Your task to perform on an android device: delete browsing data in the chrome app Image 0: 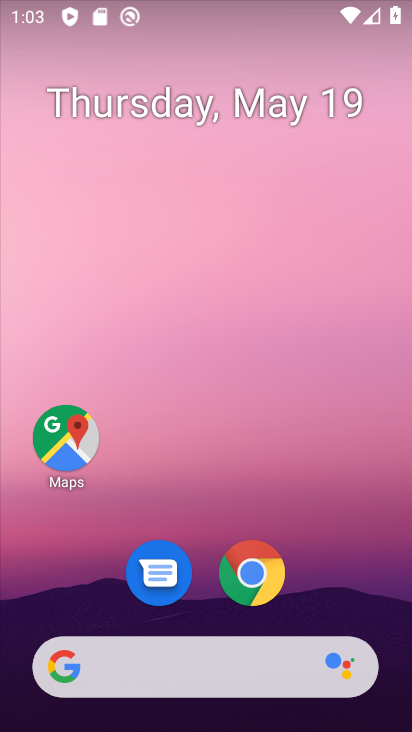
Step 0: drag from (318, 556) to (238, 21)
Your task to perform on an android device: delete browsing data in the chrome app Image 1: 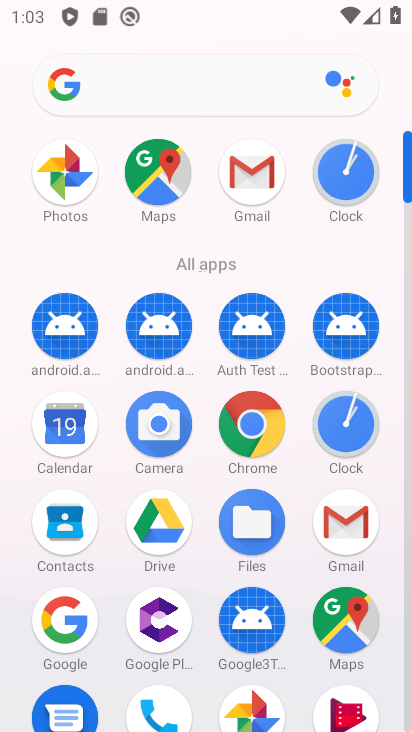
Step 1: drag from (7, 544) to (6, 259)
Your task to perform on an android device: delete browsing data in the chrome app Image 2: 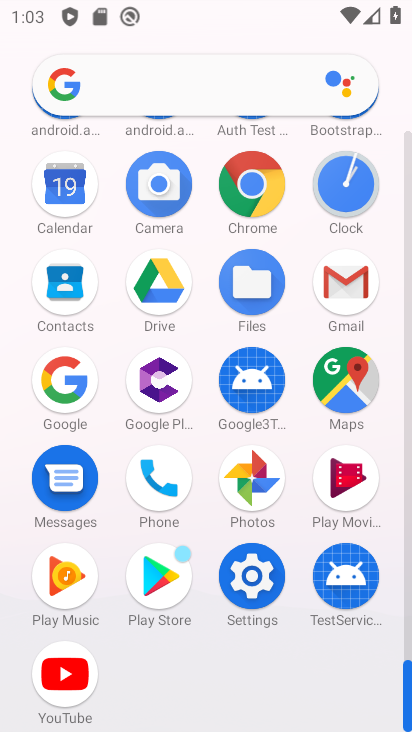
Step 2: click (250, 187)
Your task to perform on an android device: delete browsing data in the chrome app Image 3: 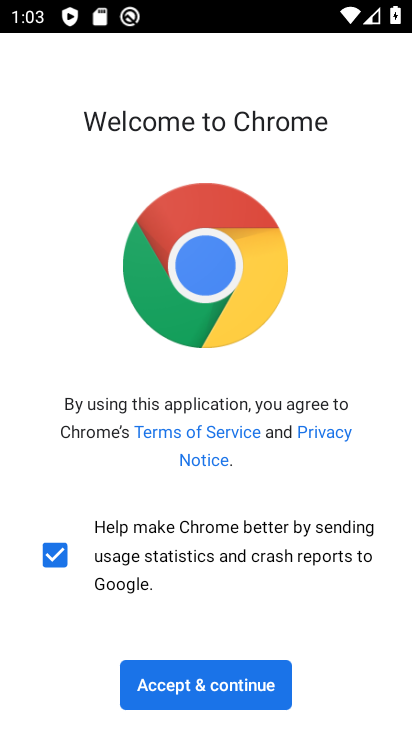
Step 3: click (156, 683)
Your task to perform on an android device: delete browsing data in the chrome app Image 4: 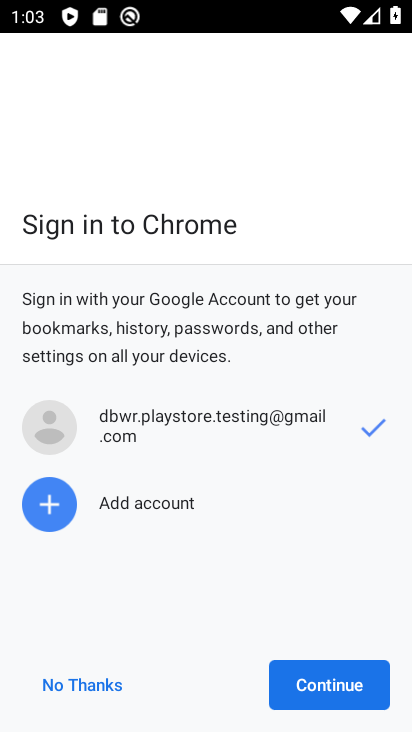
Step 4: click (309, 683)
Your task to perform on an android device: delete browsing data in the chrome app Image 5: 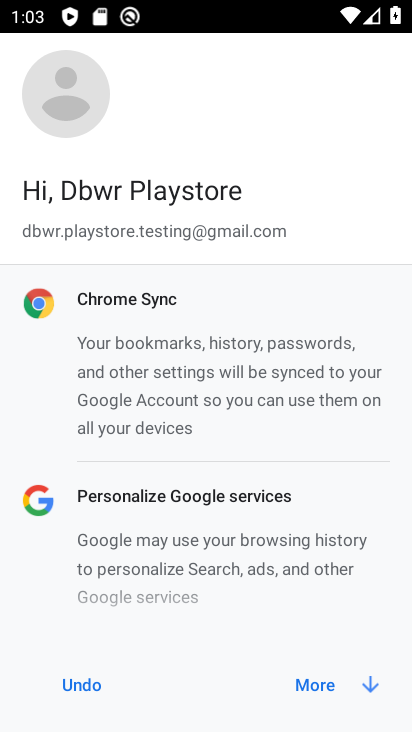
Step 5: click (315, 678)
Your task to perform on an android device: delete browsing data in the chrome app Image 6: 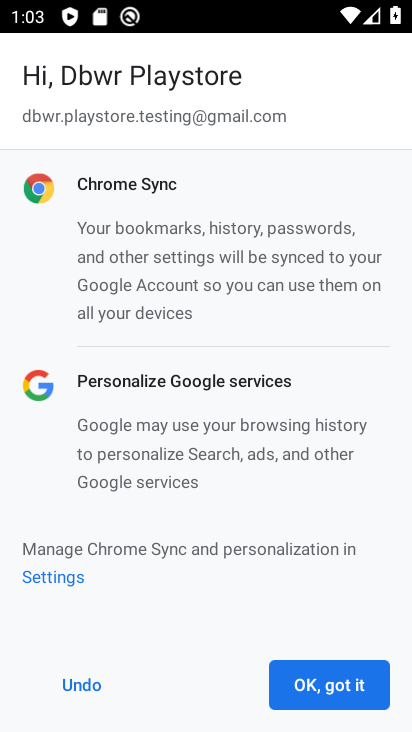
Step 6: click (315, 678)
Your task to perform on an android device: delete browsing data in the chrome app Image 7: 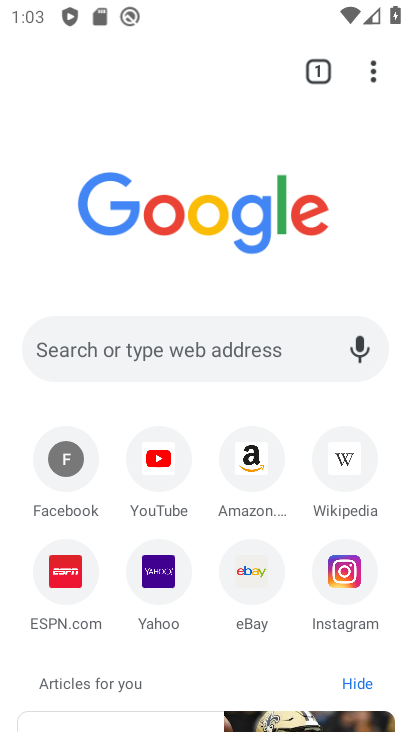
Step 7: task complete